Your task to perform on an android device: snooze an email in the gmail app Image 0: 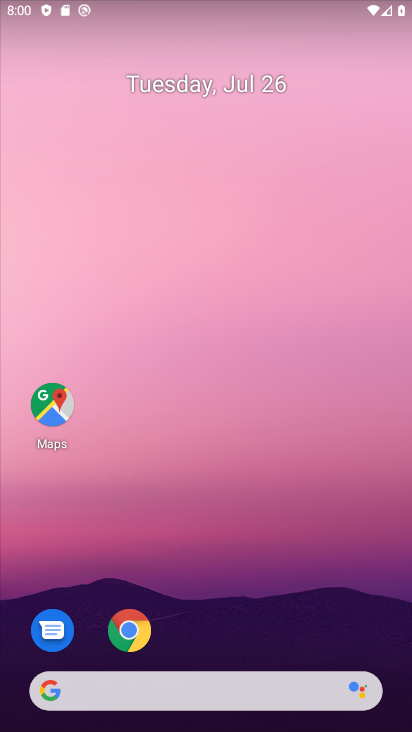
Step 0: drag from (307, 644) to (324, 17)
Your task to perform on an android device: snooze an email in the gmail app Image 1: 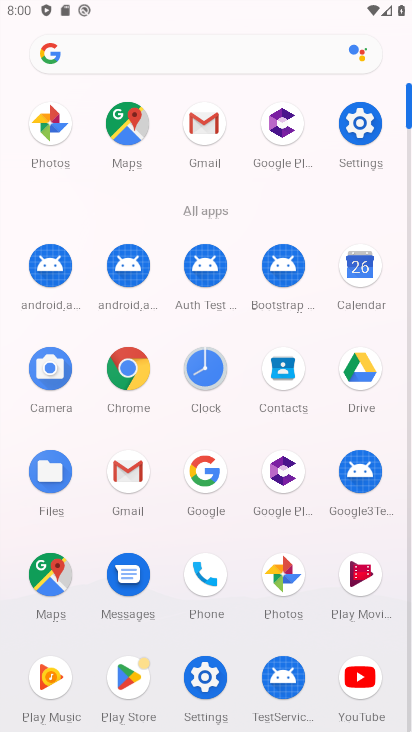
Step 1: click (199, 135)
Your task to perform on an android device: snooze an email in the gmail app Image 2: 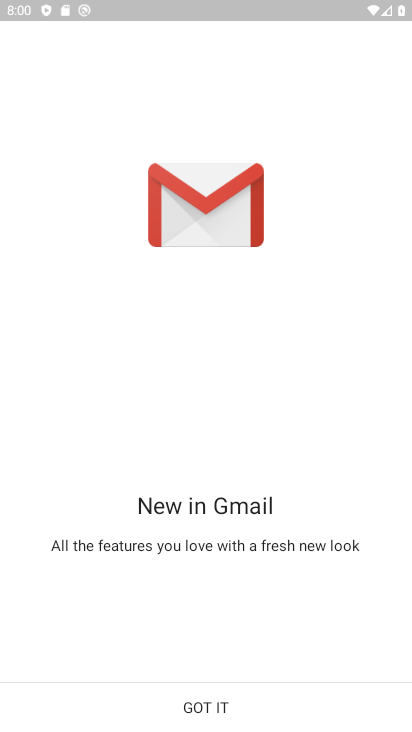
Step 2: click (201, 704)
Your task to perform on an android device: snooze an email in the gmail app Image 3: 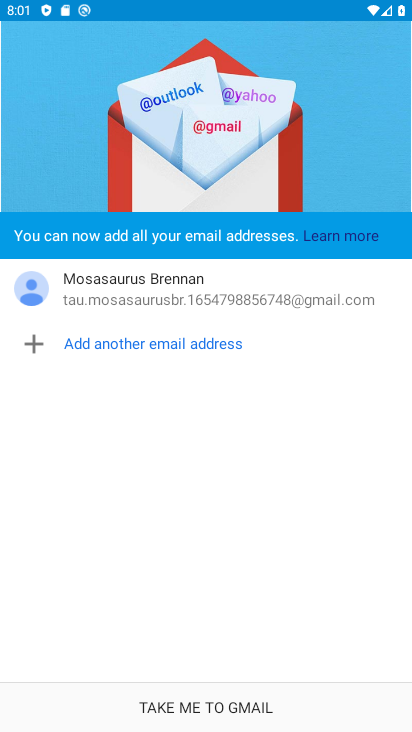
Step 3: click (201, 698)
Your task to perform on an android device: snooze an email in the gmail app Image 4: 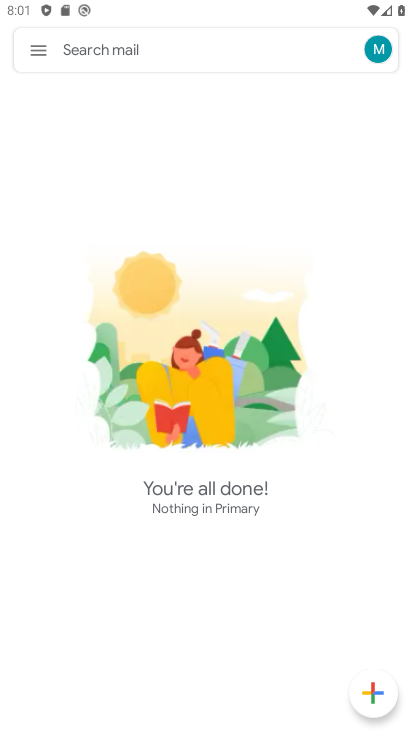
Step 4: click (46, 60)
Your task to perform on an android device: snooze an email in the gmail app Image 5: 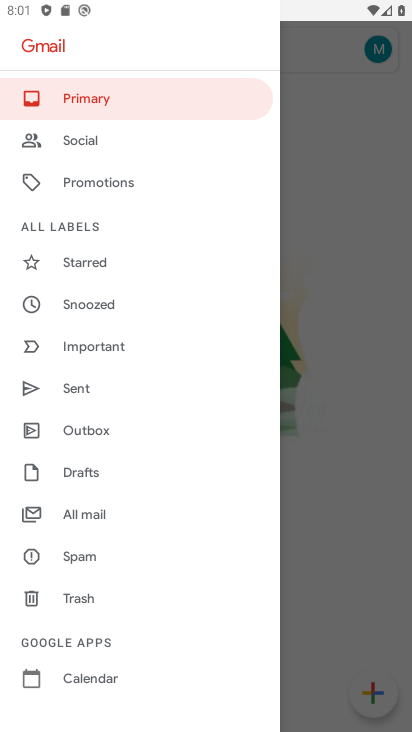
Step 5: click (77, 511)
Your task to perform on an android device: snooze an email in the gmail app Image 6: 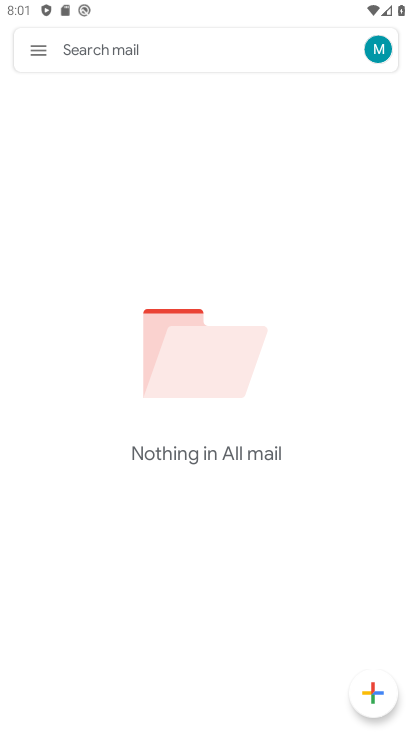
Step 6: task complete